Your task to perform on an android device: all mails in gmail Image 0: 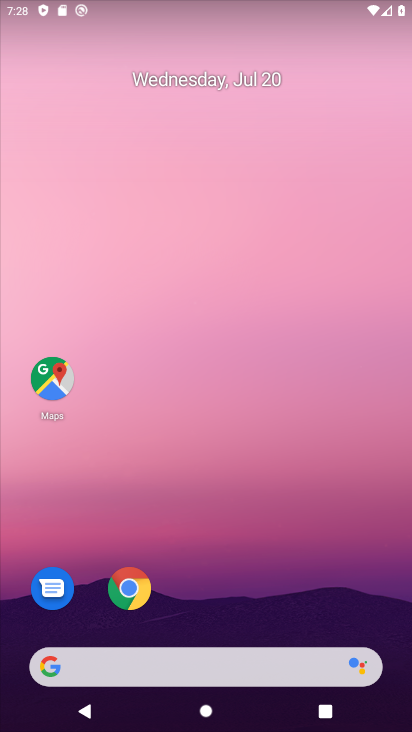
Step 0: drag from (296, 710) to (293, 398)
Your task to perform on an android device: all mails in gmail Image 1: 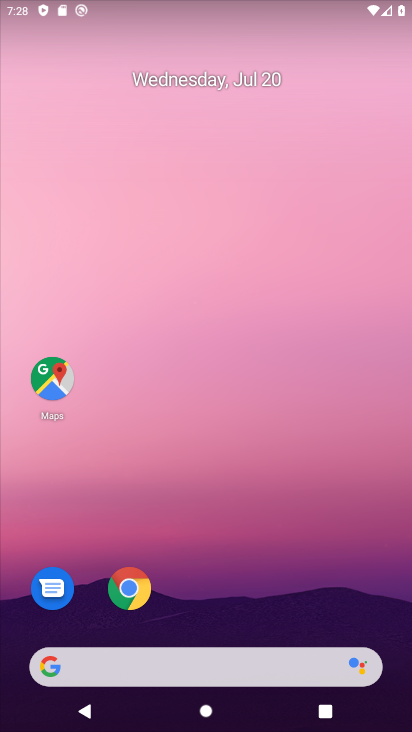
Step 1: drag from (240, 703) to (213, 190)
Your task to perform on an android device: all mails in gmail Image 2: 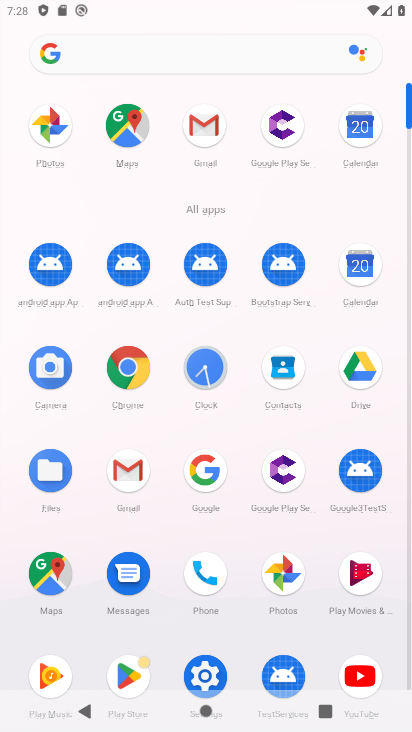
Step 2: click (148, 489)
Your task to perform on an android device: all mails in gmail Image 3: 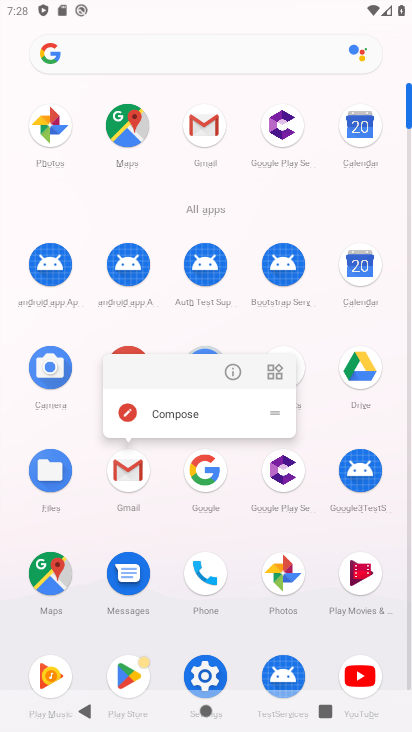
Step 3: click (121, 476)
Your task to perform on an android device: all mails in gmail Image 4: 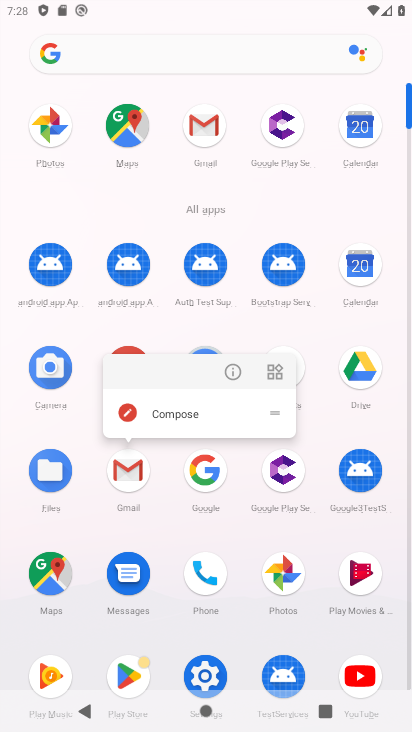
Step 4: click (121, 476)
Your task to perform on an android device: all mails in gmail Image 5: 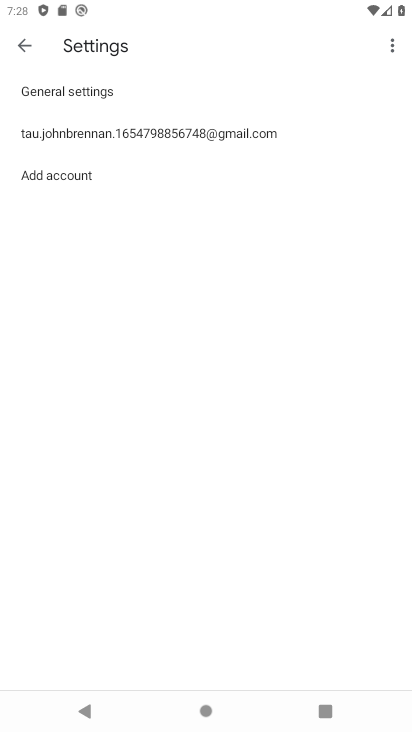
Step 5: click (31, 43)
Your task to perform on an android device: all mails in gmail Image 6: 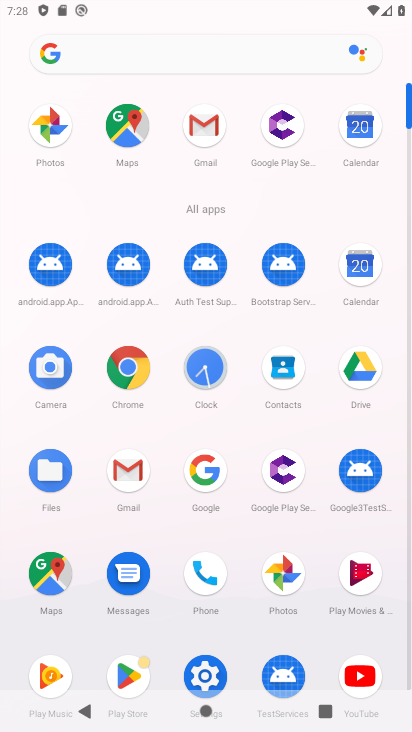
Step 6: click (210, 118)
Your task to perform on an android device: all mails in gmail Image 7: 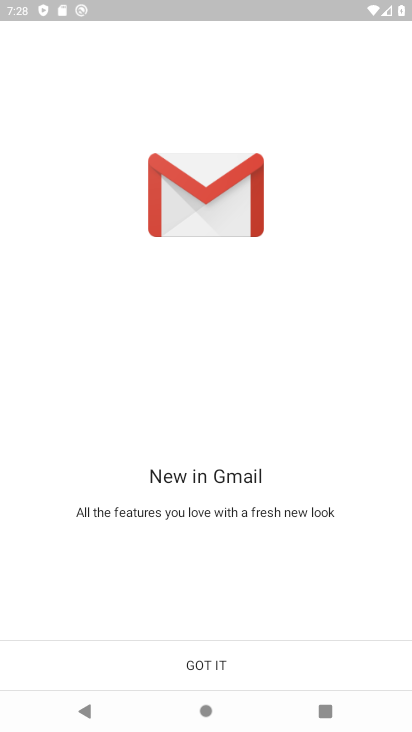
Step 7: click (229, 656)
Your task to perform on an android device: all mails in gmail Image 8: 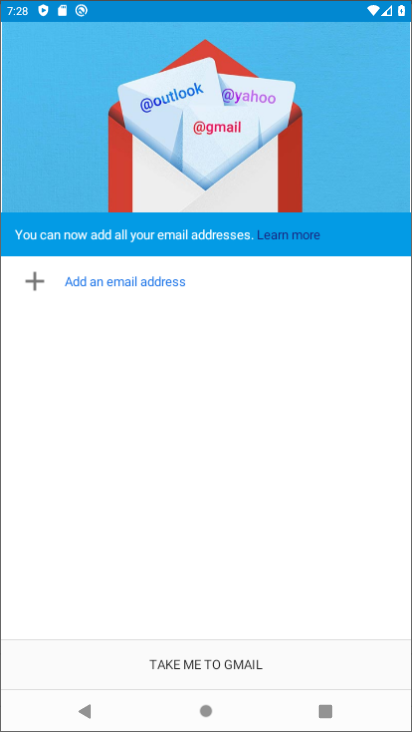
Step 8: click (229, 656)
Your task to perform on an android device: all mails in gmail Image 9: 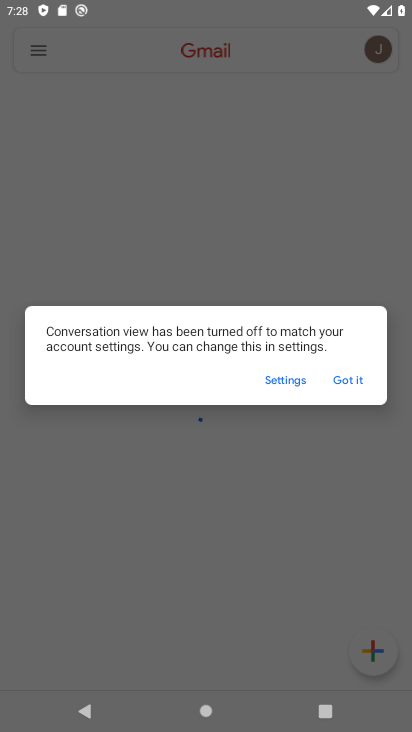
Step 9: click (350, 377)
Your task to perform on an android device: all mails in gmail Image 10: 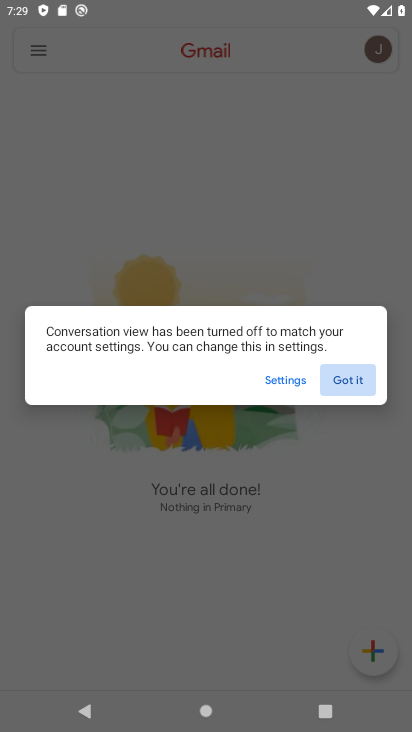
Step 10: click (36, 54)
Your task to perform on an android device: all mails in gmail Image 11: 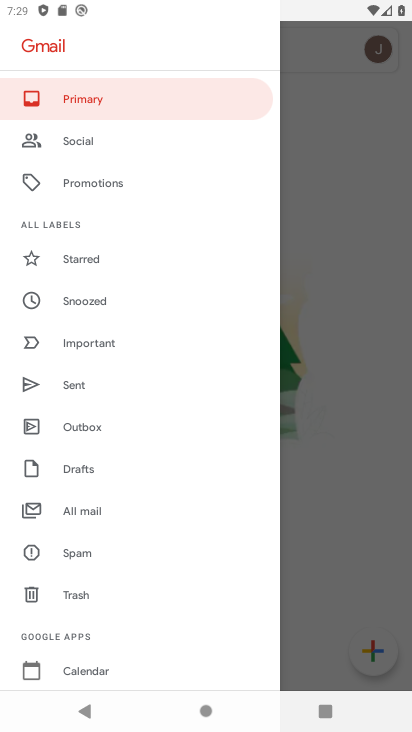
Step 11: click (102, 514)
Your task to perform on an android device: all mails in gmail Image 12: 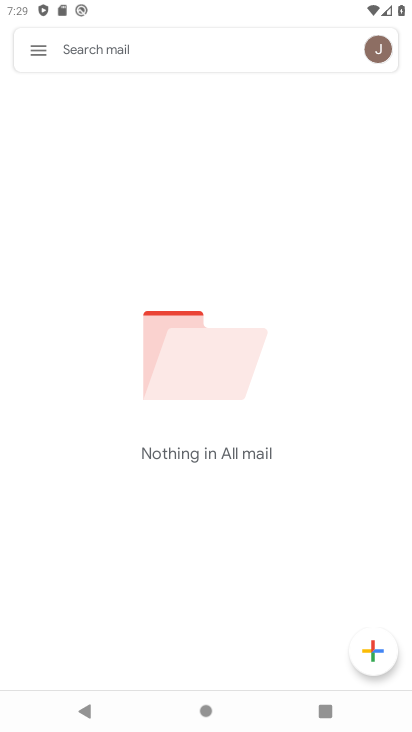
Step 12: task complete